Your task to perform on an android device: toggle translation in the chrome app Image 0: 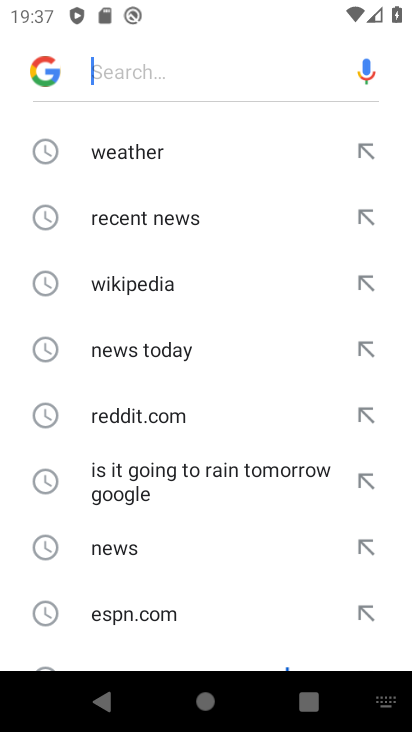
Step 0: press home button
Your task to perform on an android device: toggle translation in the chrome app Image 1: 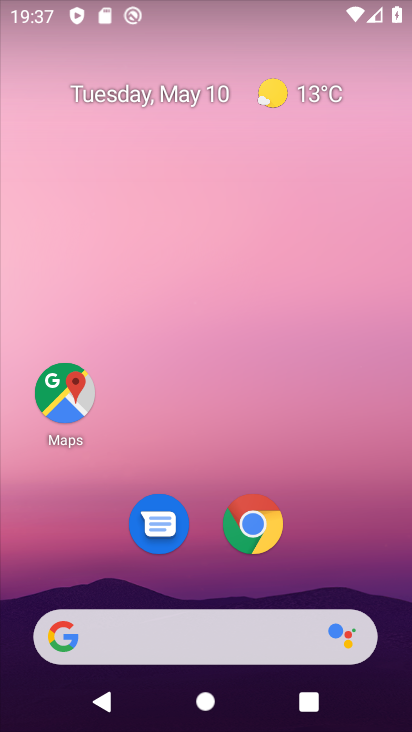
Step 1: click (269, 524)
Your task to perform on an android device: toggle translation in the chrome app Image 2: 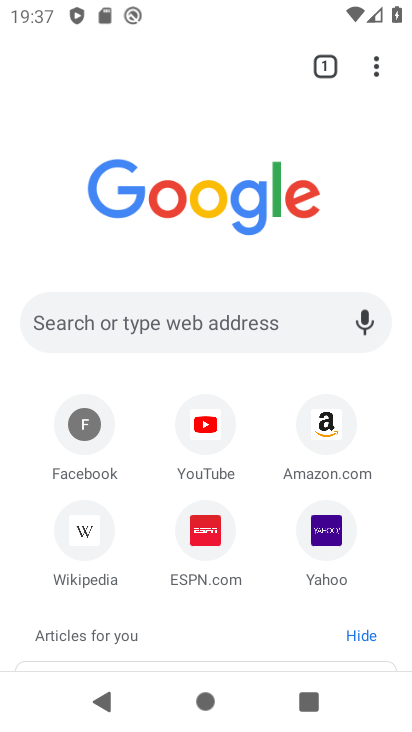
Step 2: click (375, 63)
Your task to perform on an android device: toggle translation in the chrome app Image 3: 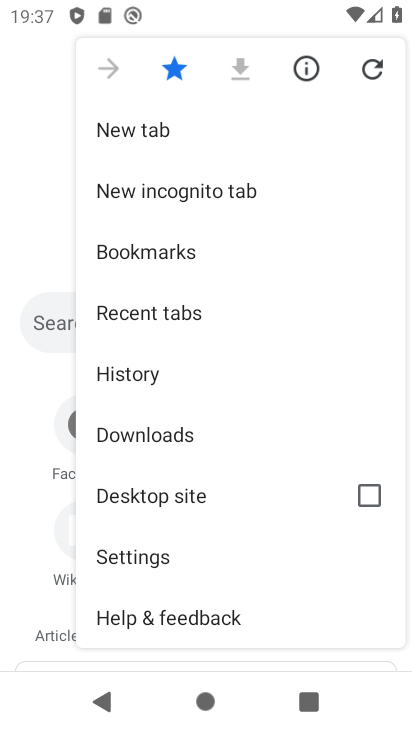
Step 3: click (158, 547)
Your task to perform on an android device: toggle translation in the chrome app Image 4: 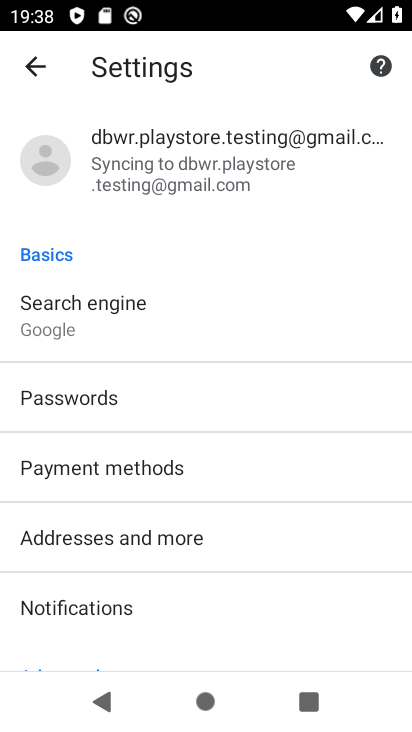
Step 4: drag from (169, 581) to (159, 161)
Your task to perform on an android device: toggle translation in the chrome app Image 5: 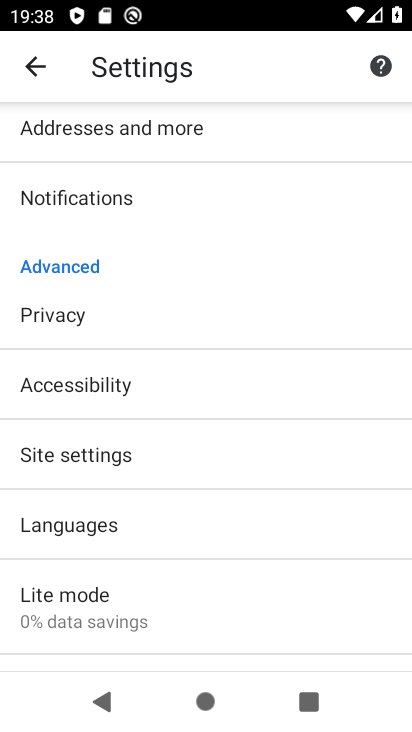
Step 5: click (178, 513)
Your task to perform on an android device: toggle translation in the chrome app Image 6: 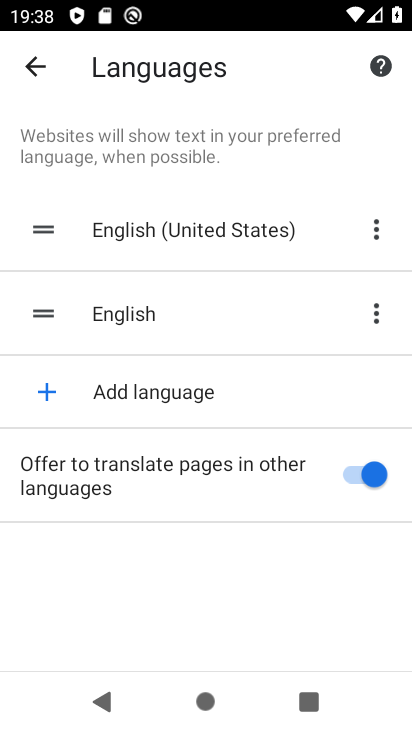
Step 6: click (347, 472)
Your task to perform on an android device: toggle translation in the chrome app Image 7: 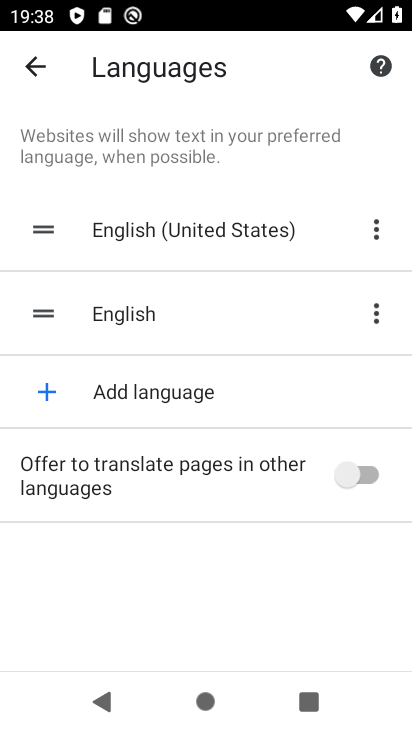
Step 7: task complete